Your task to perform on an android device: add a contact in the contacts app Image 0: 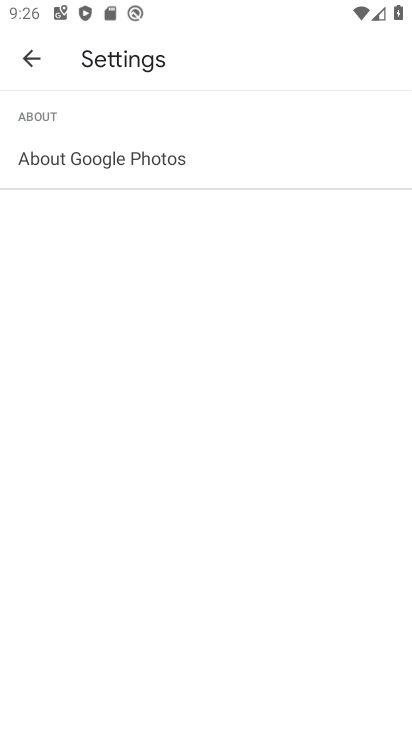
Step 0: press home button
Your task to perform on an android device: add a contact in the contacts app Image 1: 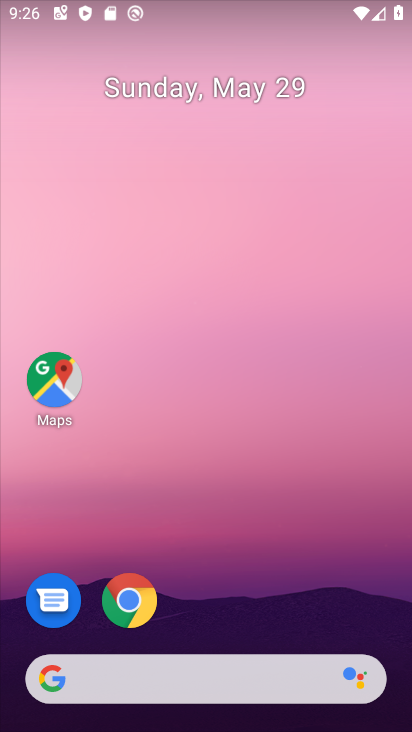
Step 1: drag from (229, 701) to (229, 127)
Your task to perform on an android device: add a contact in the contacts app Image 2: 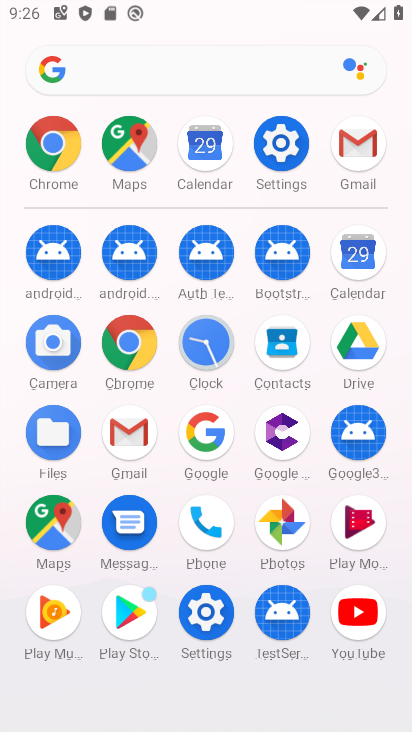
Step 2: click (285, 338)
Your task to perform on an android device: add a contact in the contacts app Image 3: 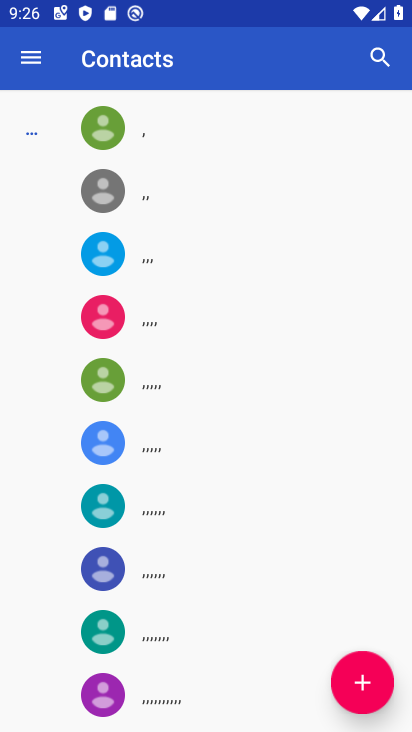
Step 3: click (359, 680)
Your task to perform on an android device: add a contact in the contacts app Image 4: 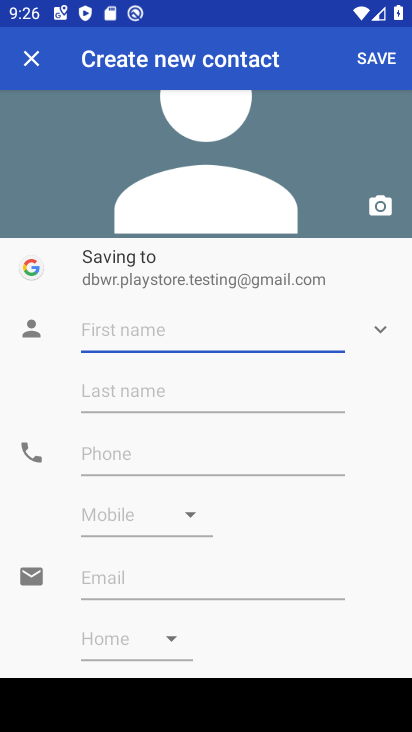
Step 4: type "zezus"
Your task to perform on an android device: add a contact in the contacts app Image 5: 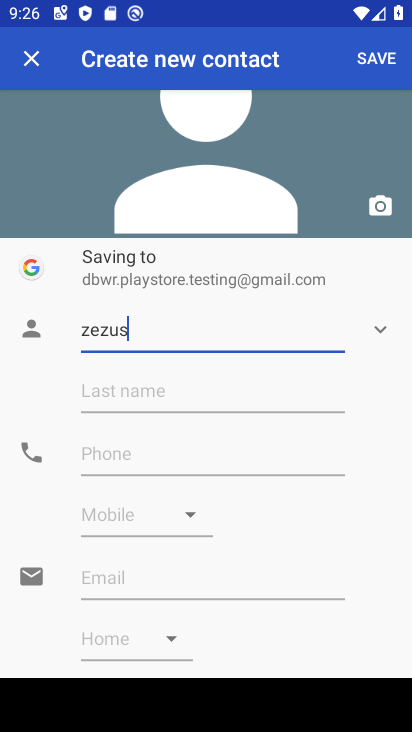
Step 5: click (95, 457)
Your task to perform on an android device: add a contact in the contacts app Image 6: 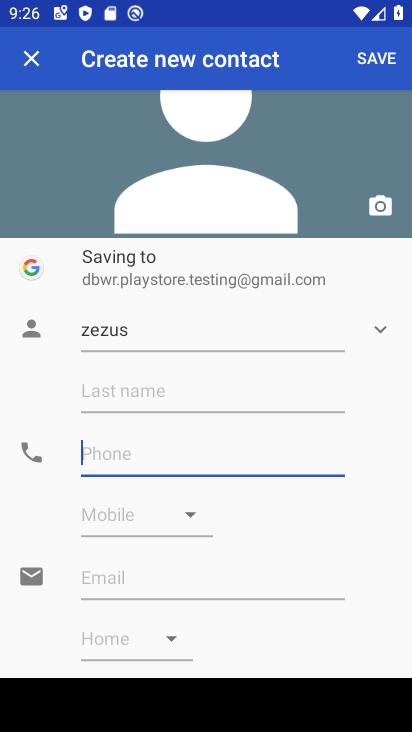
Step 6: type "78687756"
Your task to perform on an android device: add a contact in the contacts app Image 7: 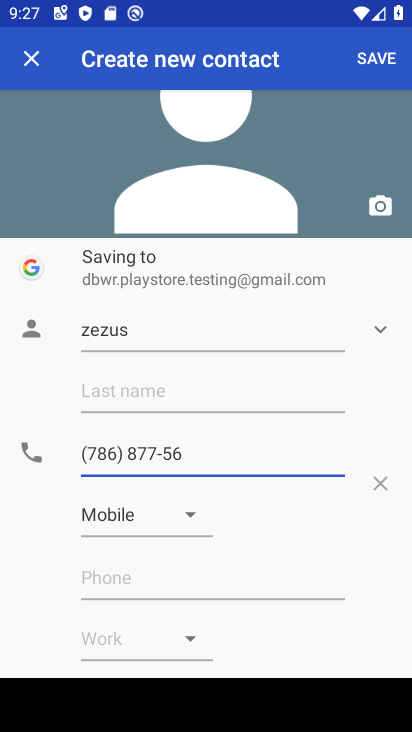
Step 7: click (375, 58)
Your task to perform on an android device: add a contact in the contacts app Image 8: 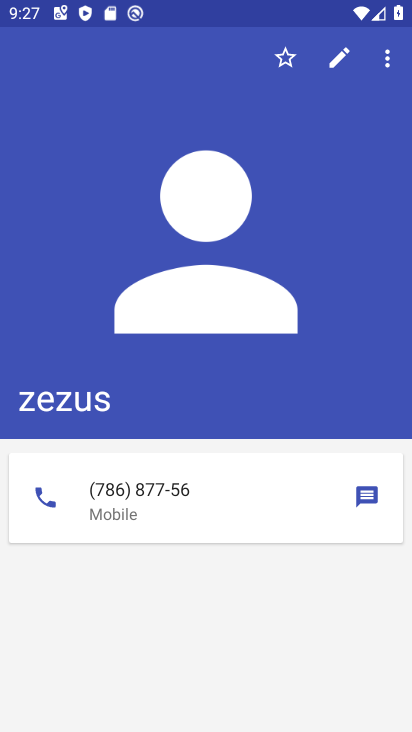
Step 8: task complete